Your task to perform on an android device: check storage Image 0: 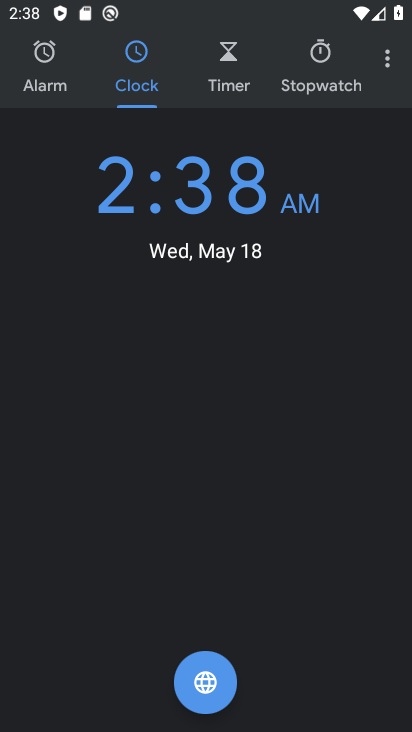
Step 0: press home button
Your task to perform on an android device: check storage Image 1: 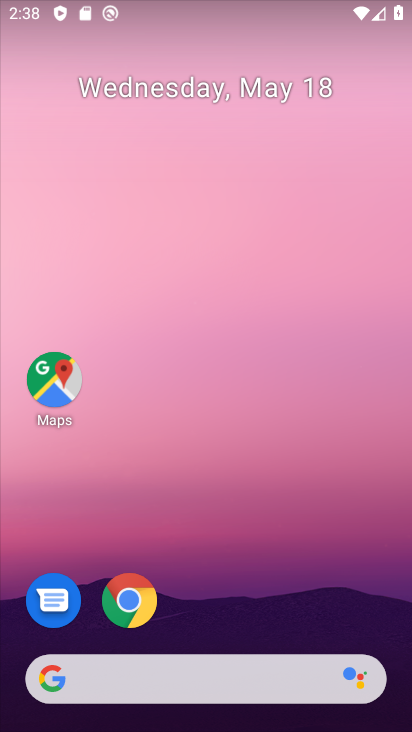
Step 1: drag from (377, 594) to (338, 267)
Your task to perform on an android device: check storage Image 2: 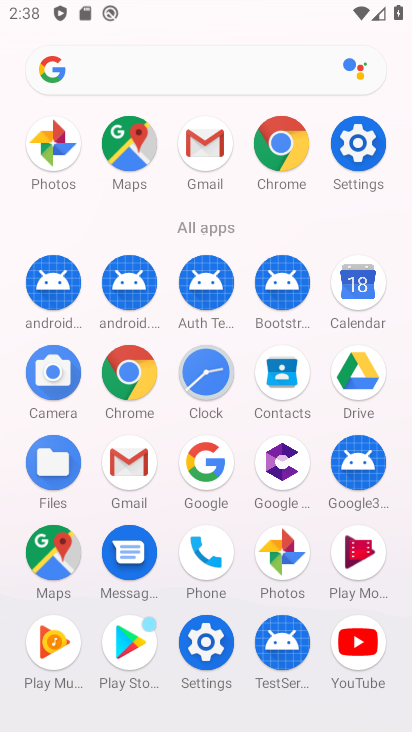
Step 2: click (202, 647)
Your task to perform on an android device: check storage Image 3: 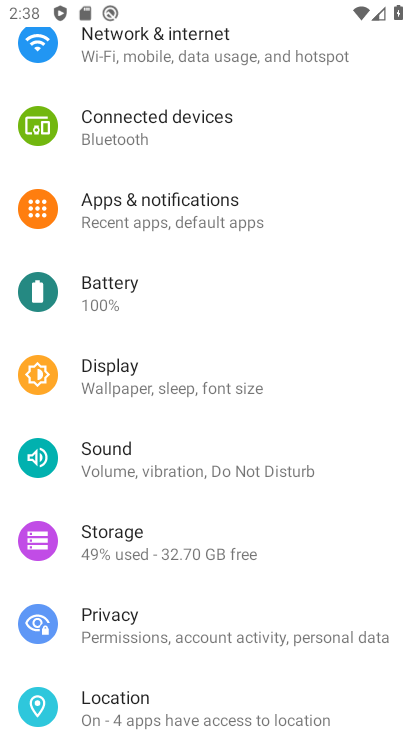
Step 3: drag from (161, 615) to (222, 366)
Your task to perform on an android device: check storage Image 4: 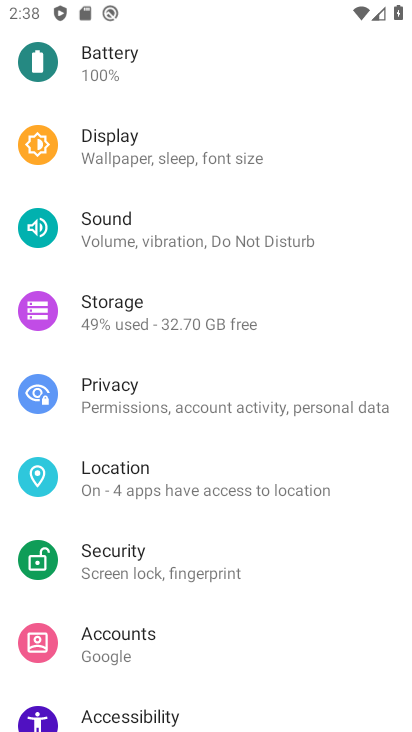
Step 4: click (174, 317)
Your task to perform on an android device: check storage Image 5: 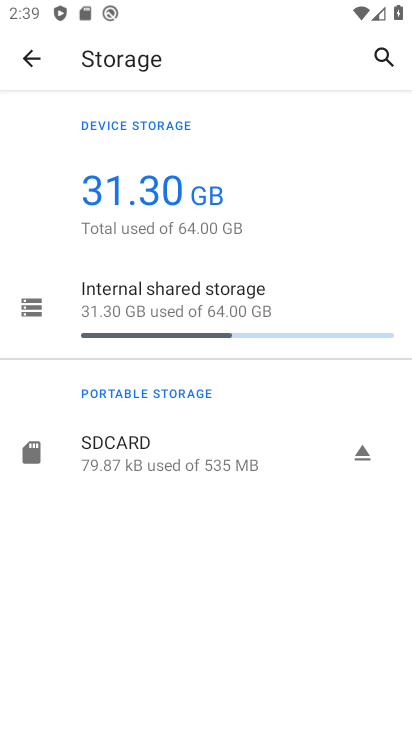
Step 5: click (20, 308)
Your task to perform on an android device: check storage Image 6: 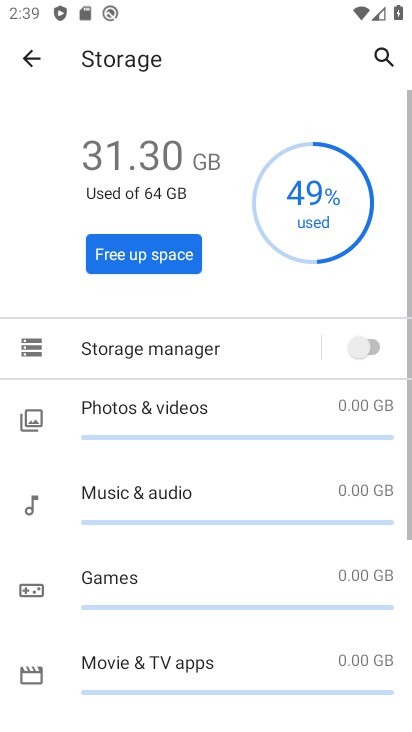
Step 6: task complete